Your task to perform on an android device: What's the weather going to be this weekend? Image 0: 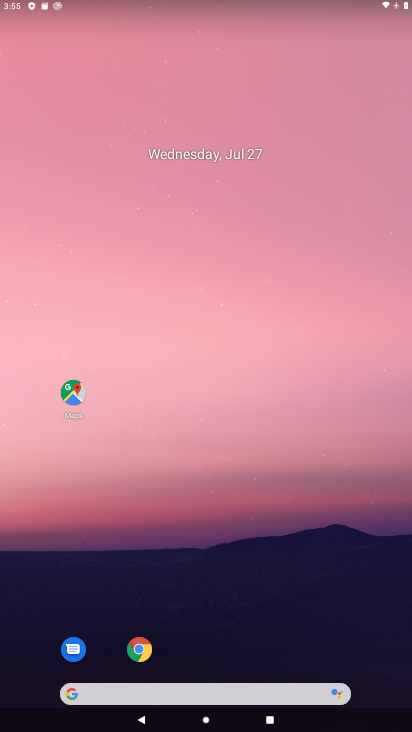
Step 0: drag from (221, 646) to (223, 250)
Your task to perform on an android device: What's the weather going to be this weekend? Image 1: 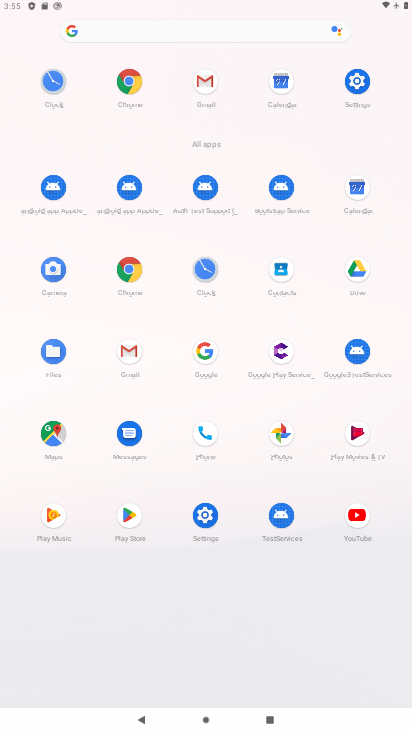
Step 1: click (132, 76)
Your task to perform on an android device: What's the weather going to be this weekend? Image 2: 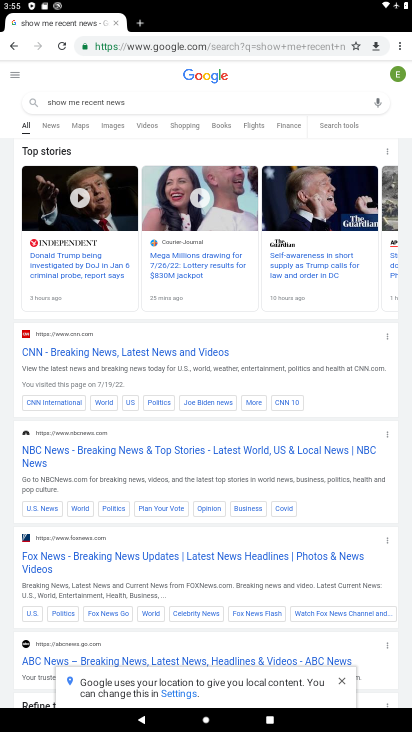
Step 2: click (158, 47)
Your task to perform on an android device: What's the weather going to be this weekend? Image 3: 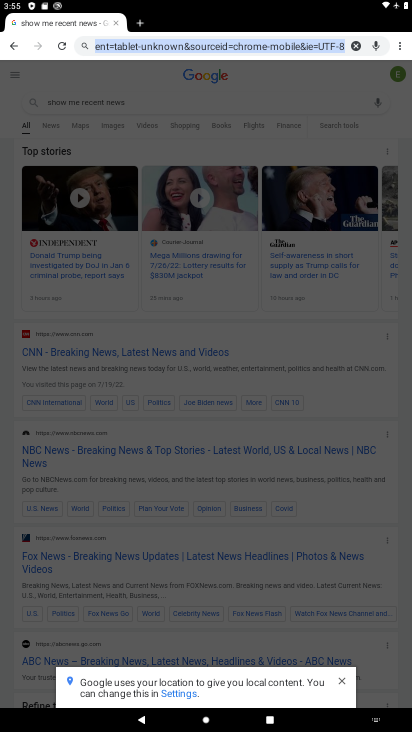
Step 3: type "What's the weather going to be this weekend?"
Your task to perform on an android device: What's the weather going to be this weekend? Image 4: 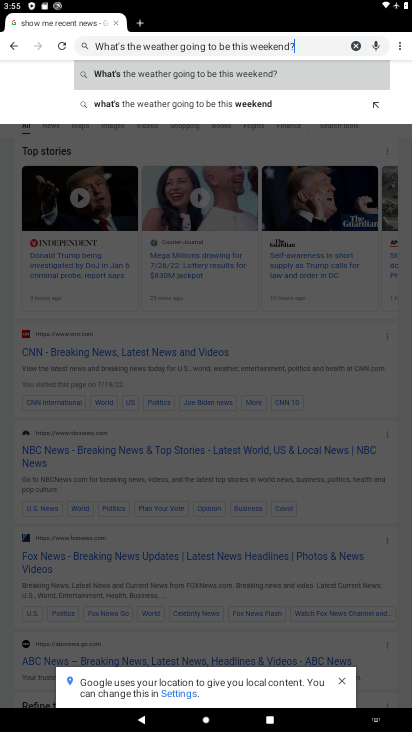
Step 4: click (319, 66)
Your task to perform on an android device: What's the weather going to be this weekend? Image 5: 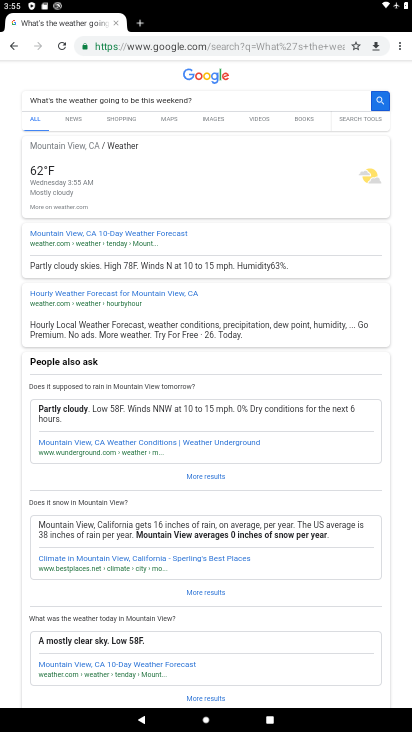
Step 5: task complete